Your task to perform on an android device: Go to Reddit.com Image 0: 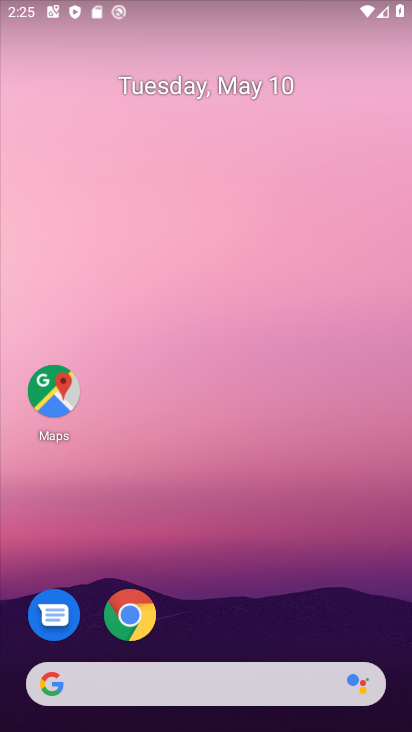
Step 0: click (128, 619)
Your task to perform on an android device: Go to Reddit.com Image 1: 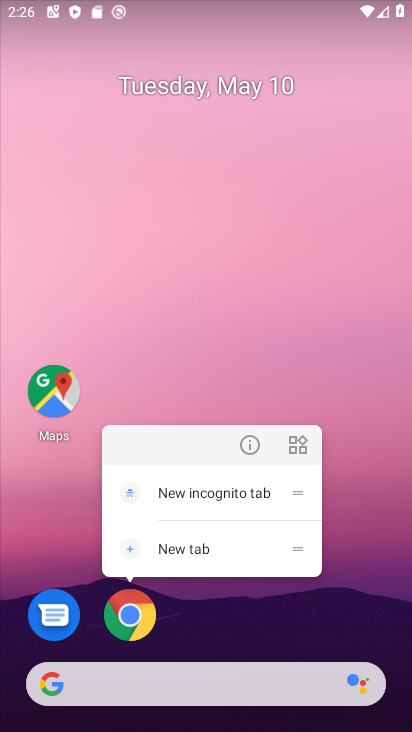
Step 1: click (135, 616)
Your task to perform on an android device: Go to Reddit.com Image 2: 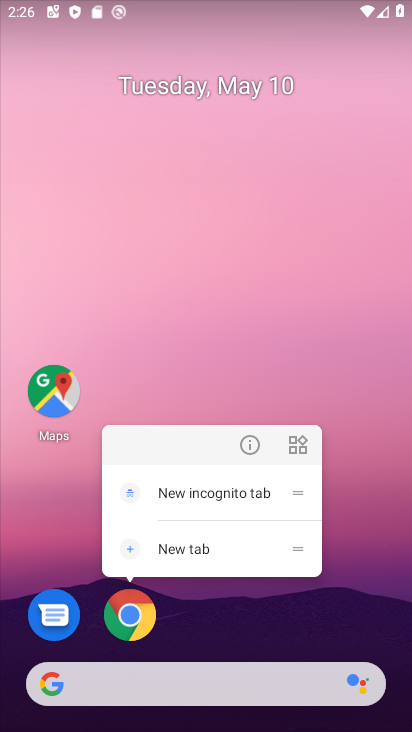
Step 2: click (205, 607)
Your task to perform on an android device: Go to Reddit.com Image 3: 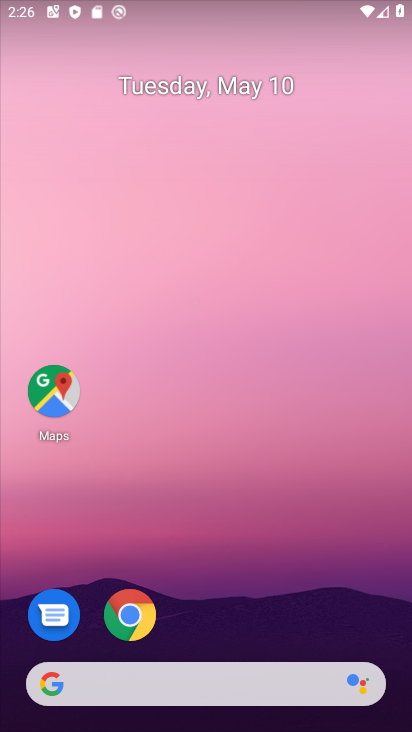
Step 3: drag from (253, 609) to (326, 72)
Your task to perform on an android device: Go to Reddit.com Image 4: 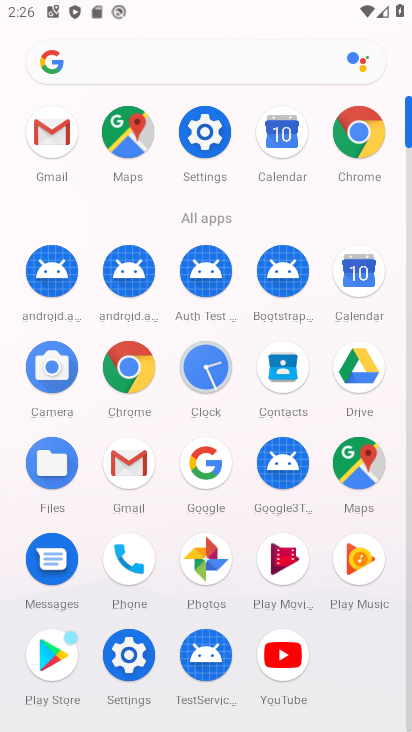
Step 4: click (130, 370)
Your task to perform on an android device: Go to Reddit.com Image 5: 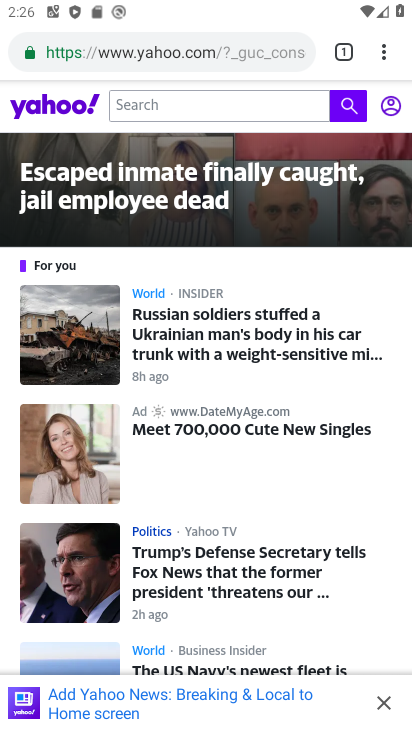
Step 5: click (246, 51)
Your task to perform on an android device: Go to Reddit.com Image 6: 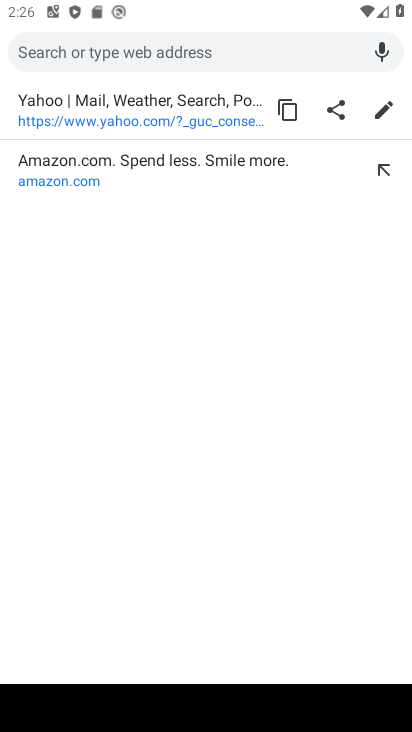
Step 6: type " Reddit.com"
Your task to perform on an android device: Go to Reddit.com Image 7: 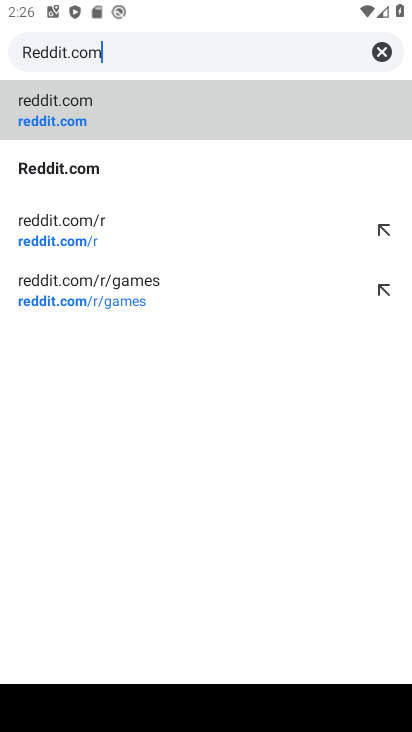
Step 7: click (72, 121)
Your task to perform on an android device: Go to Reddit.com Image 8: 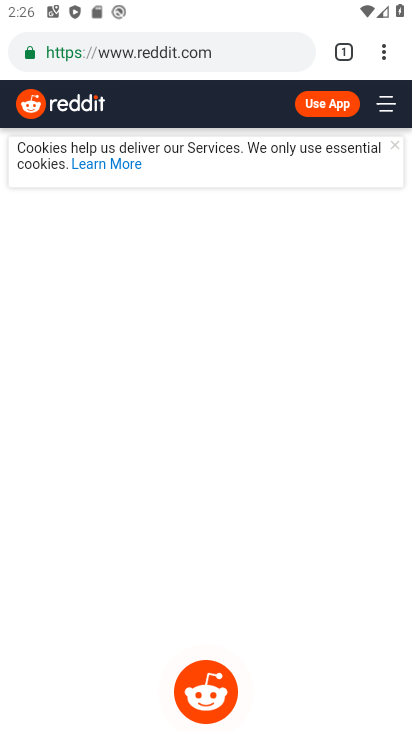
Step 8: task complete